Your task to perform on an android device: Check the price on the Dyson V11 Motorhead on Best Buy Image 0: 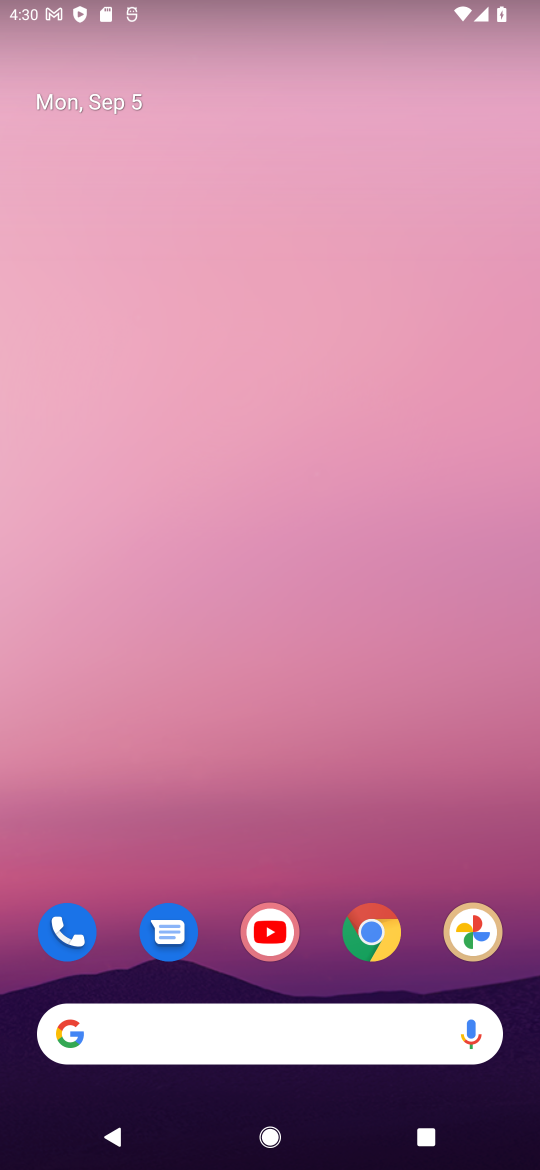
Step 0: drag from (324, 761) to (357, 77)
Your task to perform on an android device: Check the price on the Dyson V11 Motorhead on Best Buy Image 1: 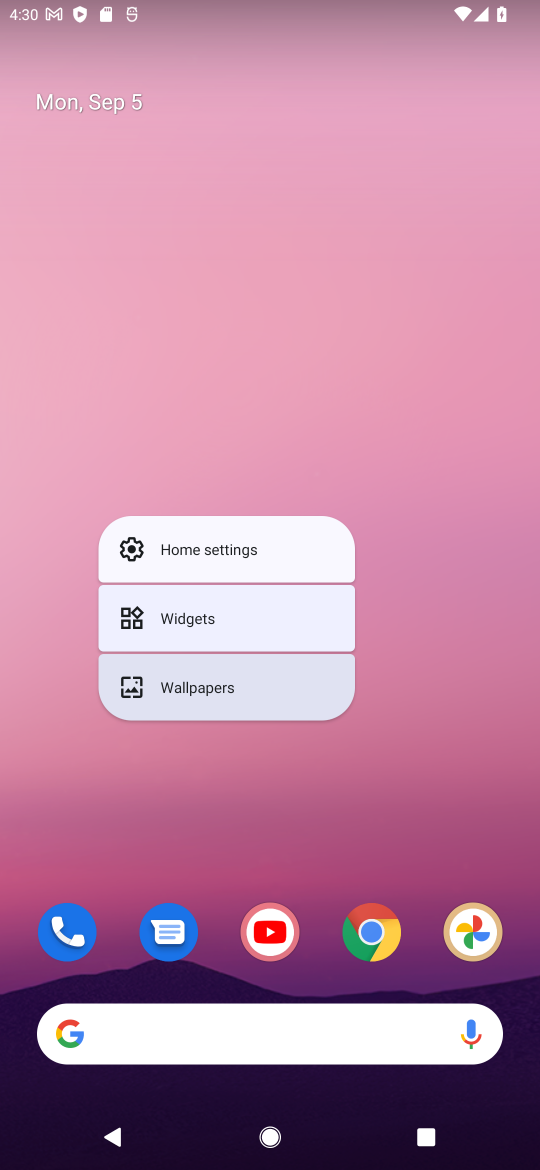
Step 1: click (374, 526)
Your task to perform on an android device: Check the price on the Dyson V11 Motorhead on Best Buy Image 2: 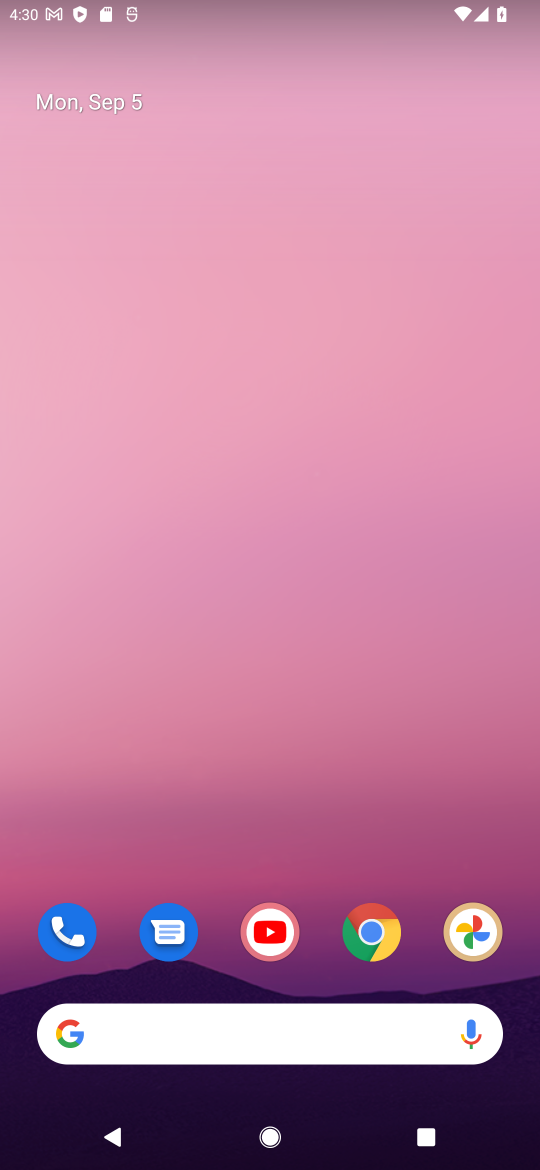
Step 2: drag from (326, 344) to (334, 210)
Your task to perform on an android device: Check the price on the Dyson V11 Motorhead on Best Buy Image 3: 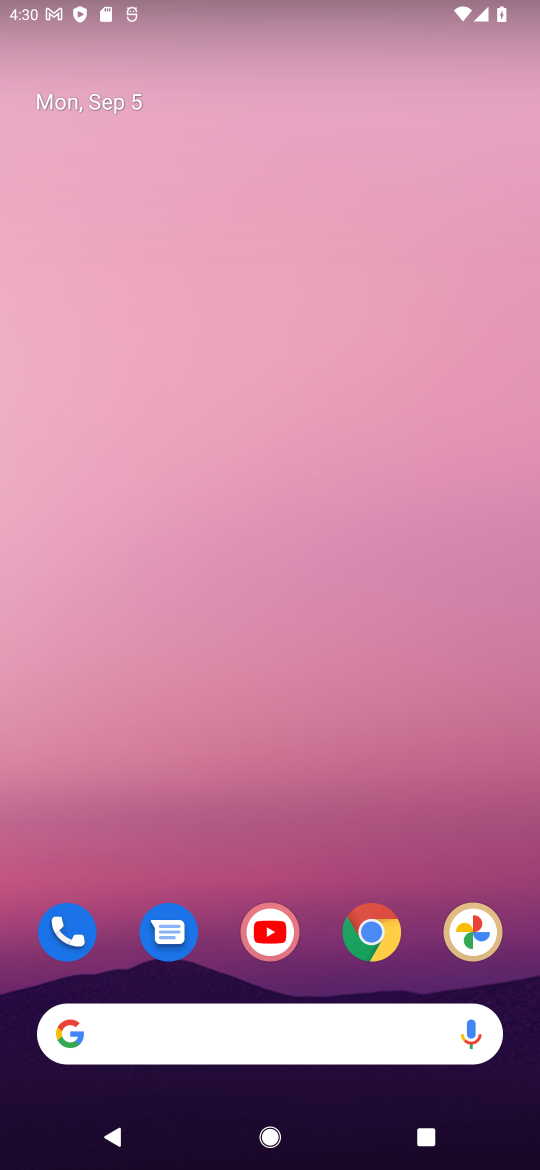
Step 3: drag from (304, 981) to (284, 96)
Your task to perform on an android device: Check the price on the Dyson V11 Motorhead on Best Buy Image 4: 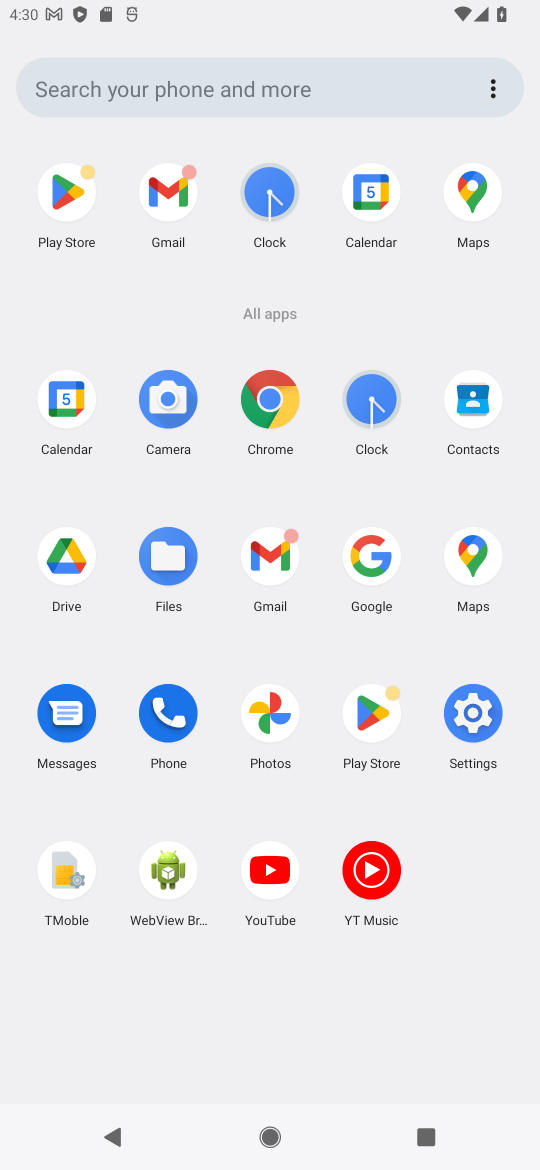
Step 4: click (371, 554)
Your task to perform on an android device: Check the price on the Dyson V11 Motorhead on Best Buy Image 5: 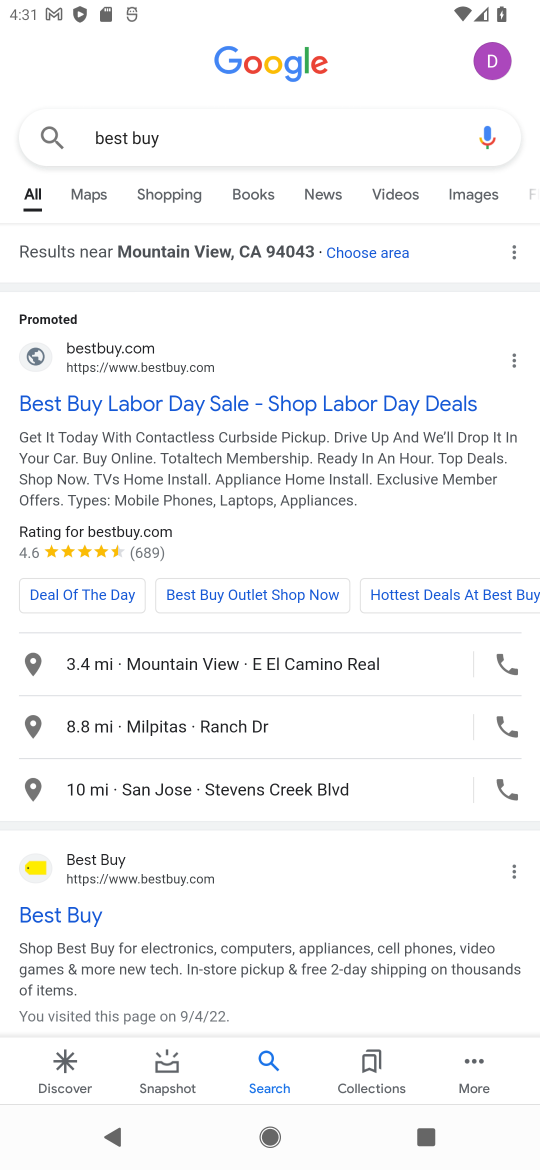
Step 5: click (214, 147)
Your task to perform on an android device: Check the price on the Dyson V11 Motorhead on Best Buy Image 6: 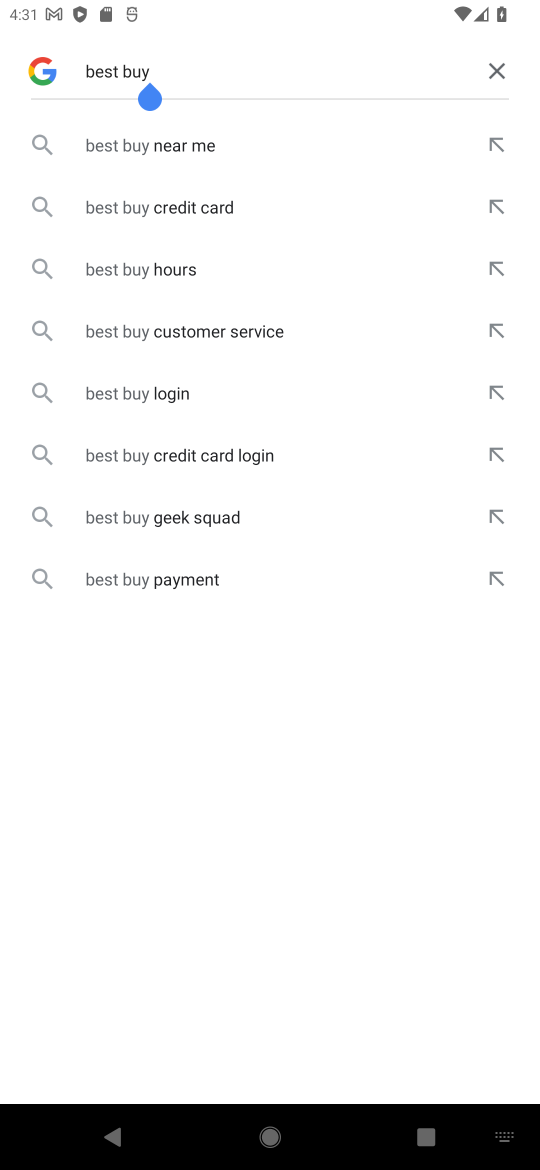
Step 6: click (493, 66)
Your task to perform on an android device: Check the price on the Dyson V11 Motorhead on Best Buy Image 7: 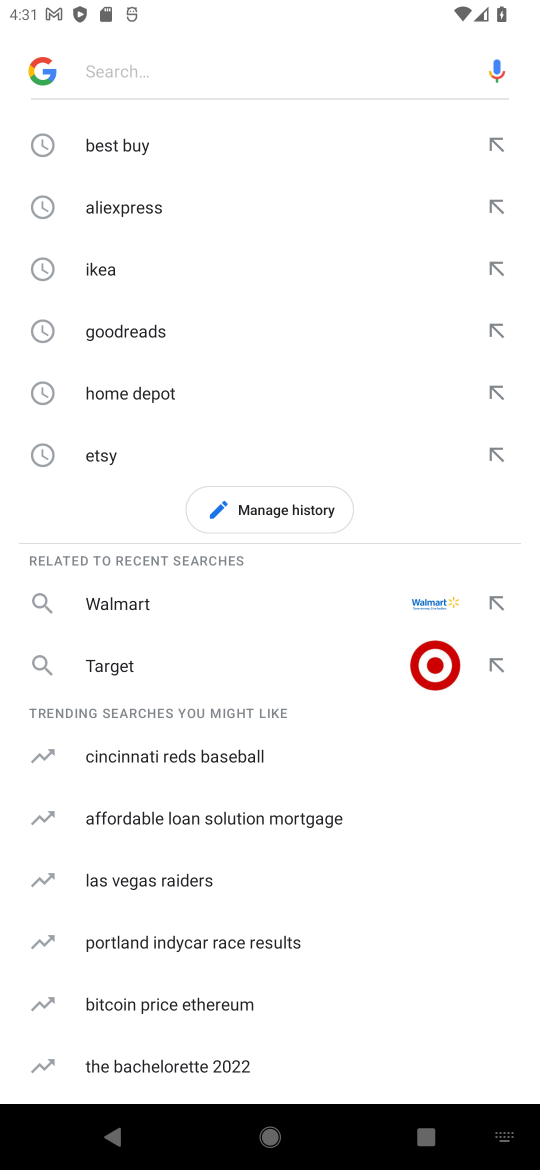
Step 7: click (133, 146)
Your task to perform on an android device: Check the price on the Dyson V11 Motorhead on Best Buy Image 8: 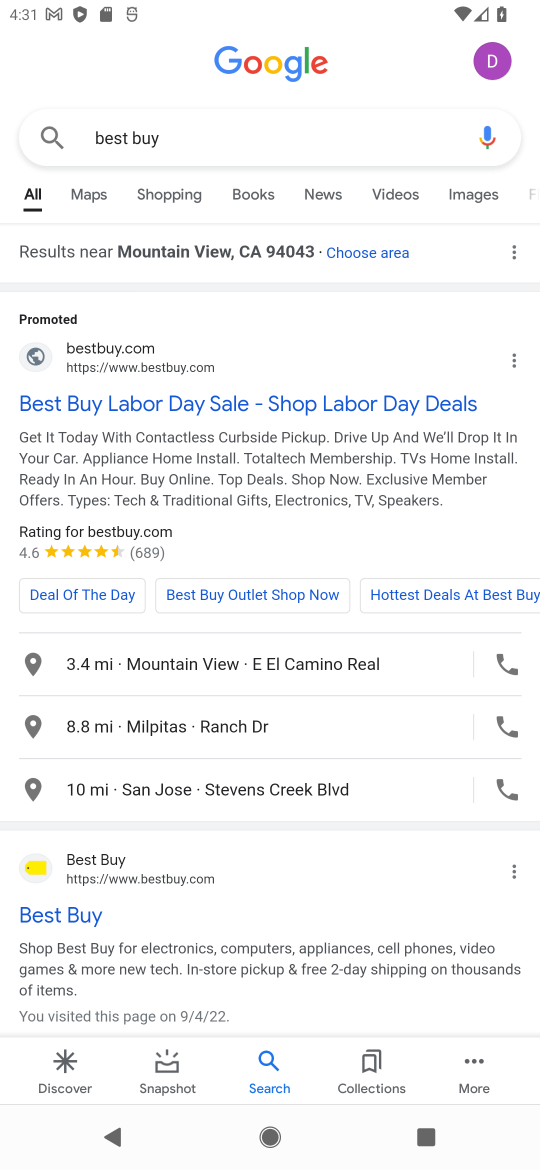
Step 8: click (81, 922)
Your task to perform on an android device: Check the price on the Dyson V11 Motorhead on Best Buy Image 9: 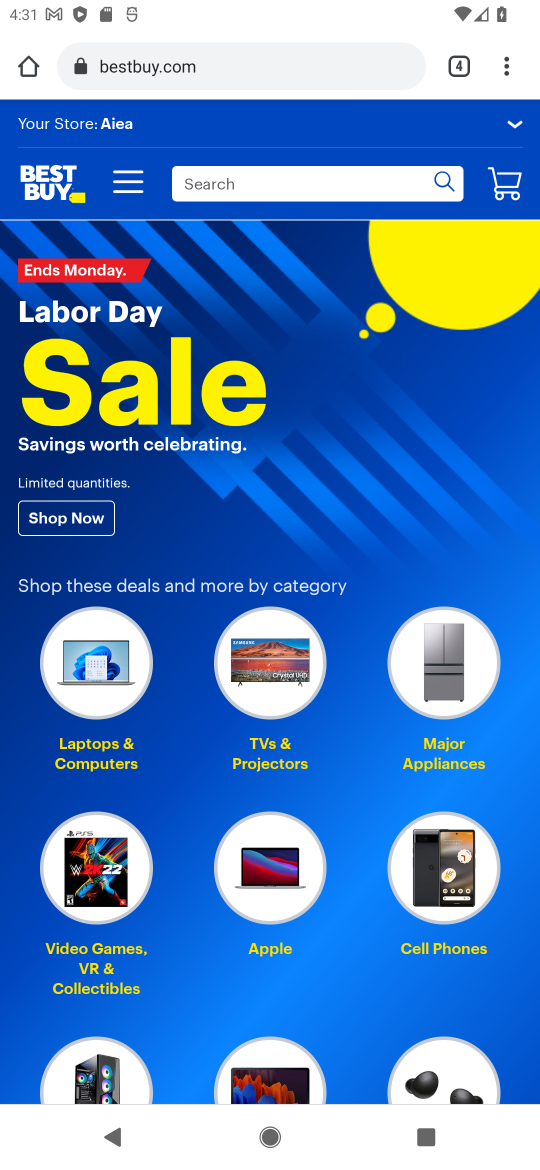
Step 9: click (281, 175)
Your task to perform on an android device: Check the price on the Dyson V11 Motorhead on Best Buy Image 10: 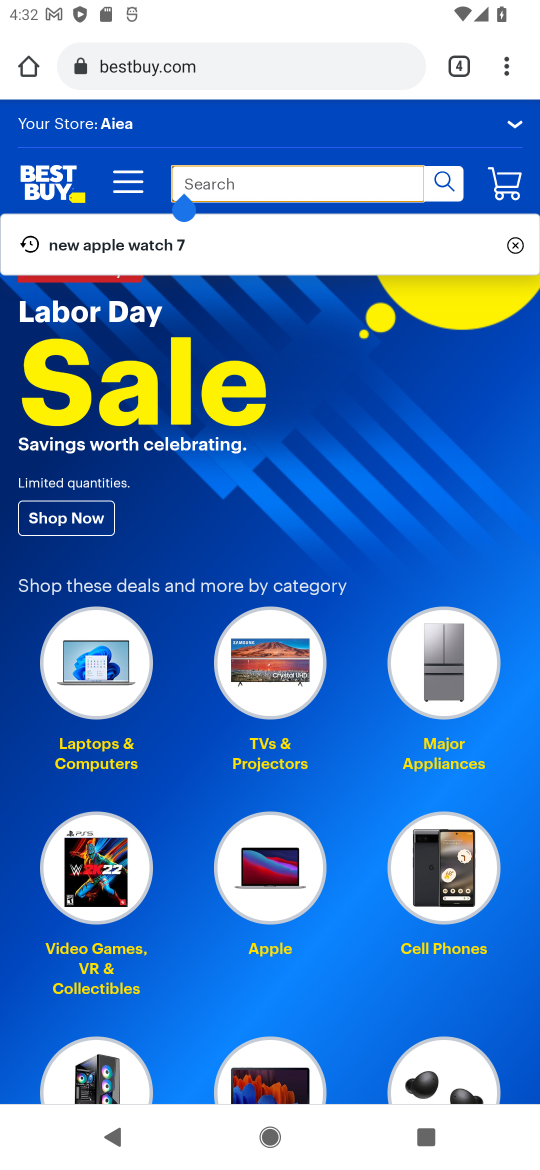
Step 10: type "Dyson V11 Motorhead"
Your task to perform on an android device: Check the price on the Dyson V11 Motorhead on Best Buy Image 11: 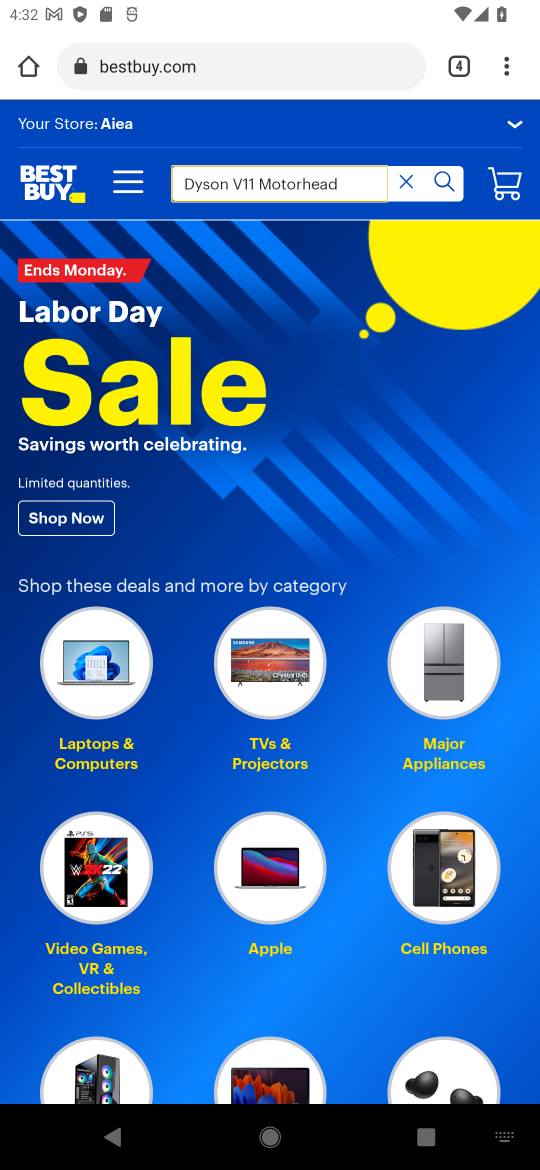
Step 11: click (443, 182)
Your task to perform on an android device: Check the price on the Dyson V11 Motorhead on Best Buy Image 12: 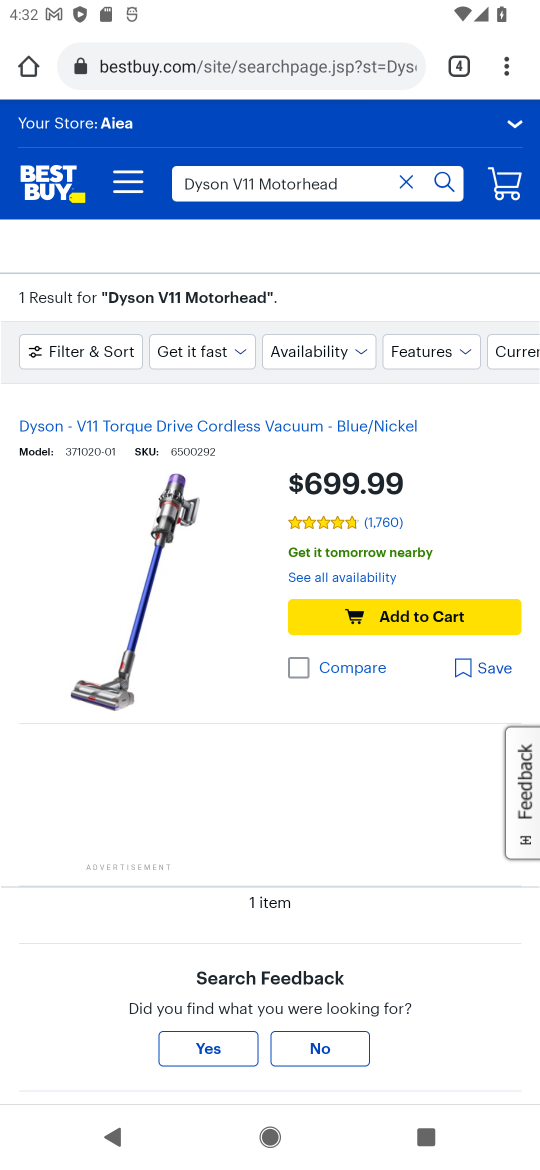
Step 12: task complete